Your task to perform on an android device: toggle improve location accuracy Image 0: 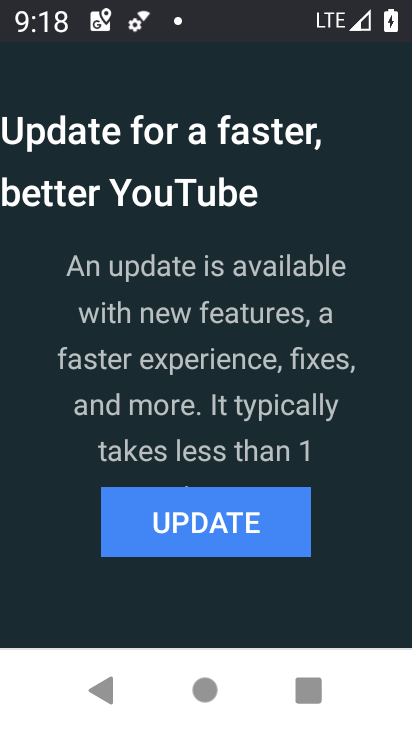
Step 0: press home button
Your task to perform on an android device: toggle improve location accuracy Image 1: 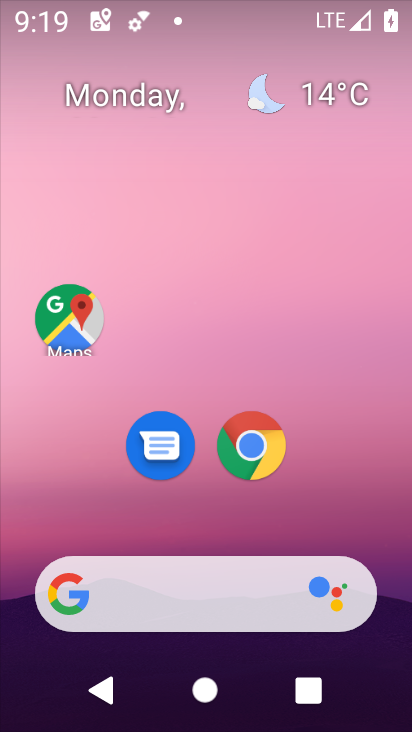
Step 1: drag from (203, 532) to (163, 34)
Your task to perform on an android device: toggle improve location accuracy Image 2: 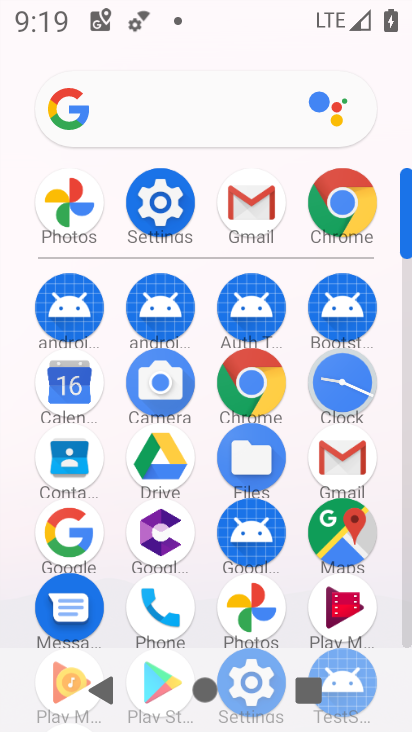
Step 2: drag from (206, 574) to (202, 172)
Your task to perform on an android device: toggle improve location accuracy Image 3: 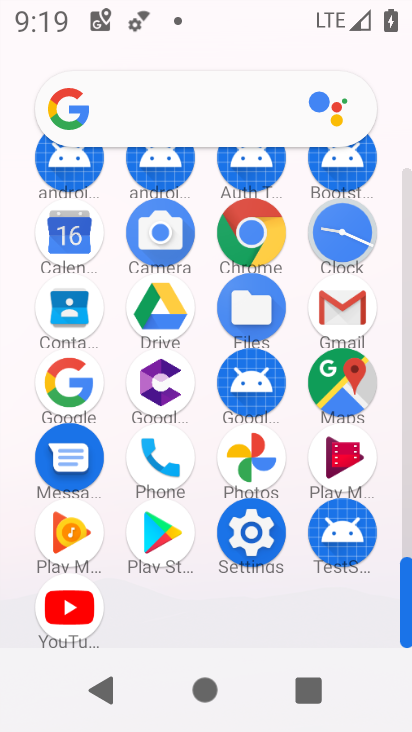
Step 3: click (254, 530)
Your task to perform on an android device: toggle improve location accuracy Image 4: 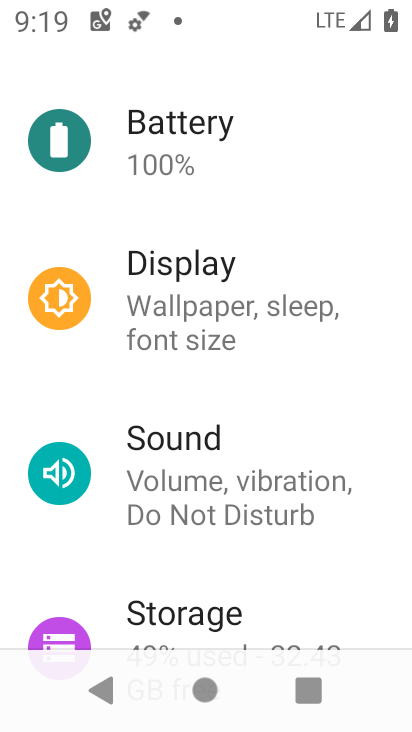
Step 4: drag from (251, 598) to (250, 127)
Your task to perform on an android device: toggle improve location accuracy Image 5: 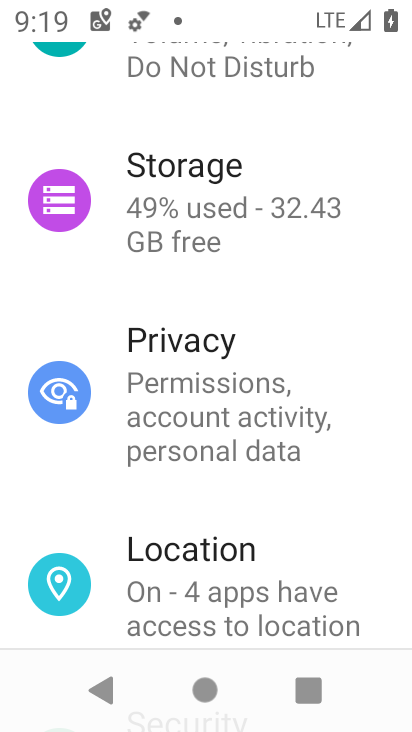
Step 5: click (262, 572)
Your task to perform on an android device: toggle improve location accuracy Image 6: 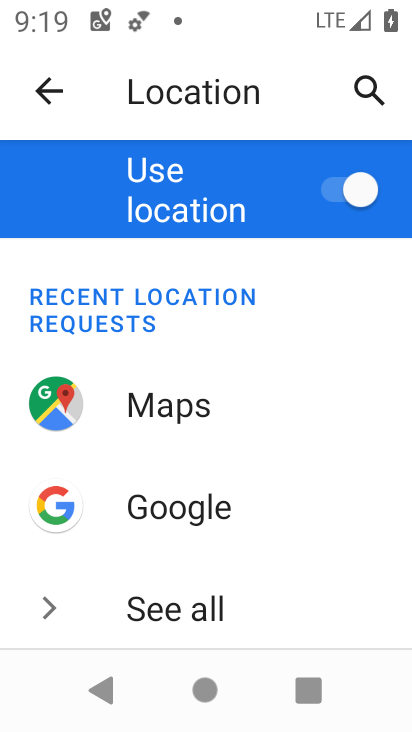
Step 6: drag from (210, 622) to (206, 151)
Your task to perform on an android device: toggle improve location accuracy Image 7: 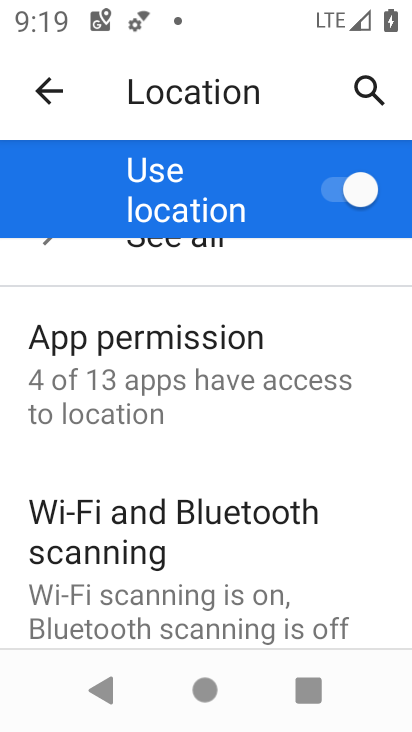
Step 7: drag from (253, 596) to (285, 152)
Your task to perform on an android device: toggle improve location accuracy Image 8: 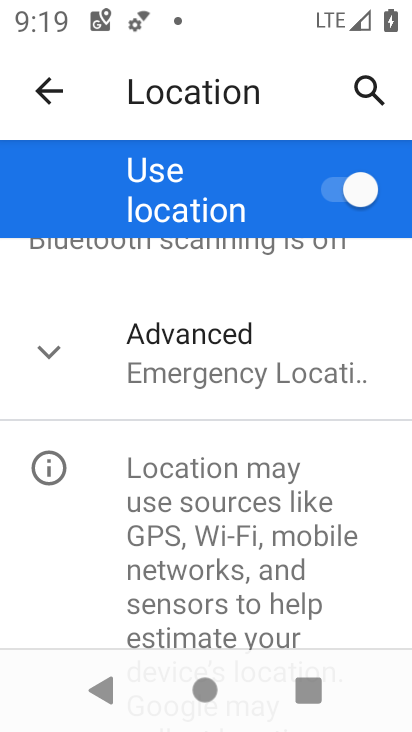
Step 8: click (55, 344)
Your task to perform on an android device: toggle improve location accuracy Image 9: 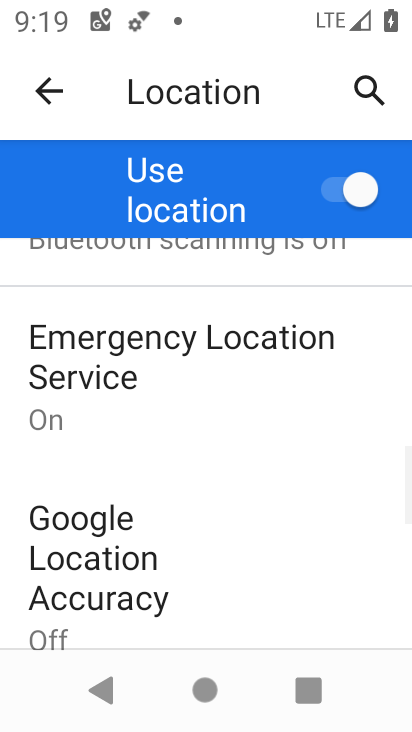
Step 9: click (177, 574)
Your task to perform on an android device: toggle improve location accuracy Image 10: 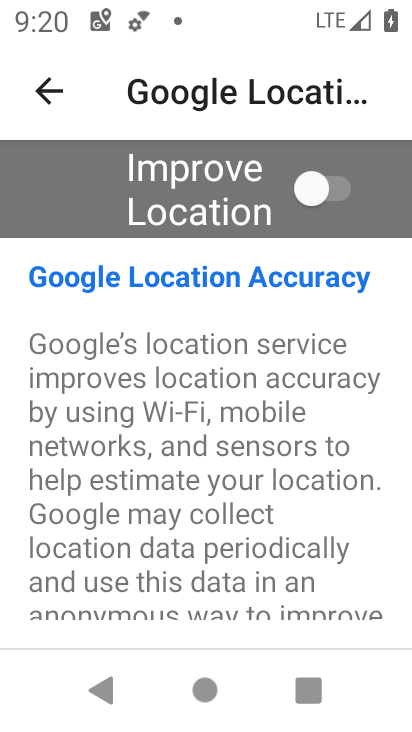
Step 10: click (318, 191)
Your task to perform on an android device: toggle improve location accuracy Image 11: 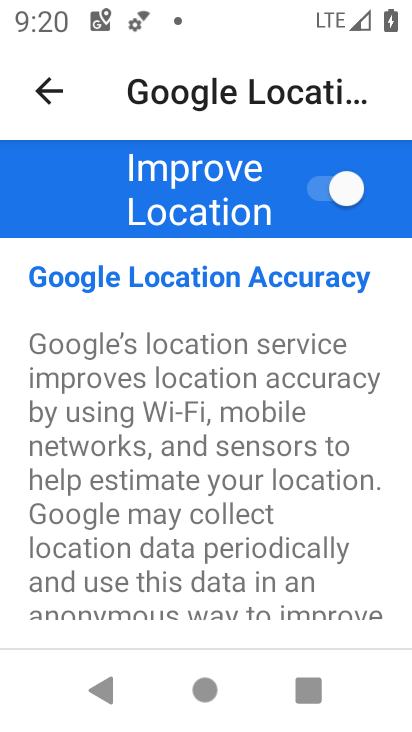
Step 11: task complete